Your task to perform on an android device: Open the Play Movies app and select the watchlist tab. Image 0: 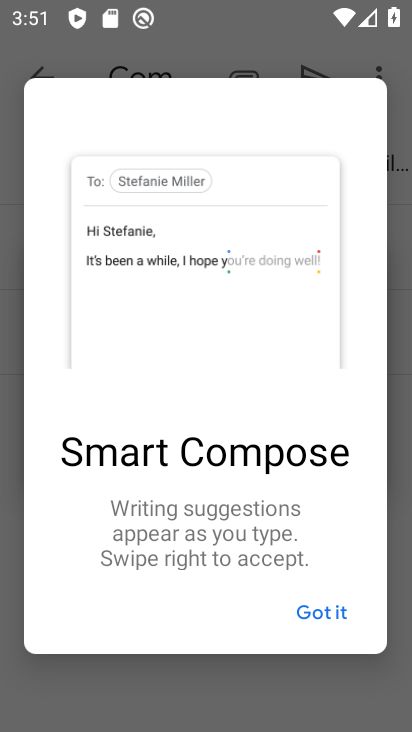
Step 0: press back button
Your task to perform on an android device: Open the Play Movies app and select the watchlist tab. Image 1: 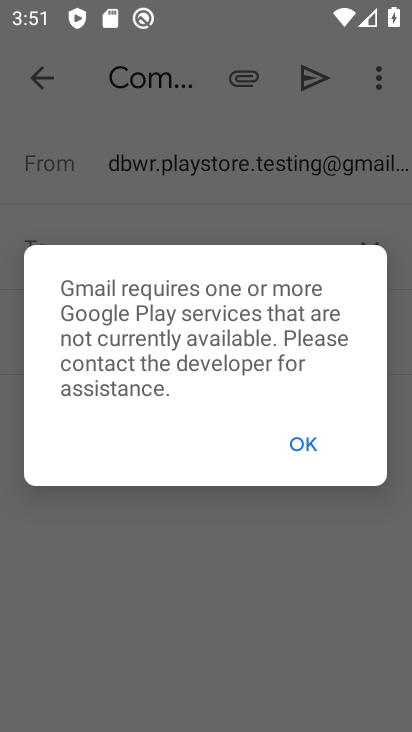
Step 1: press home button
Your task to perform on an android device: Open the Play Movies app and select the watchlist tab. Image 2: 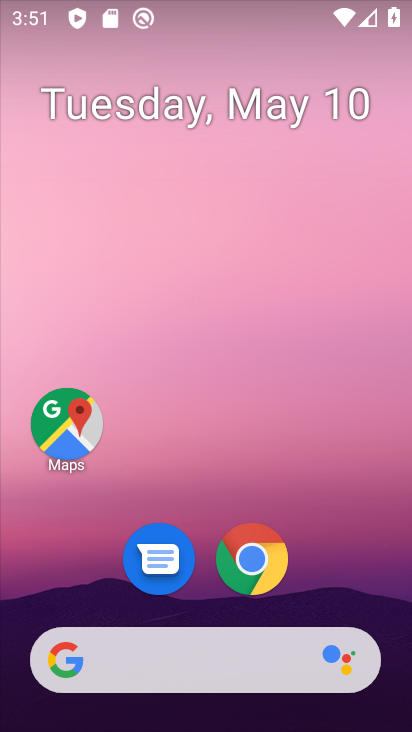
Step 2: drag from (199, 611) to (280, 110)
Your task to perform on an android device: Open the Play Movies app and select the watchlist tab. Image 3: 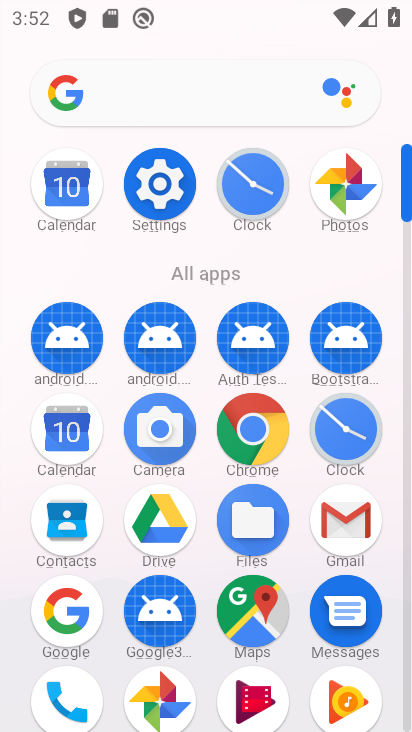
Step 3: drag from (181, 681) to (250, 360)
Your task to perform on an android device: Open the Play Movies app and select the watchlist tab. Image 4: 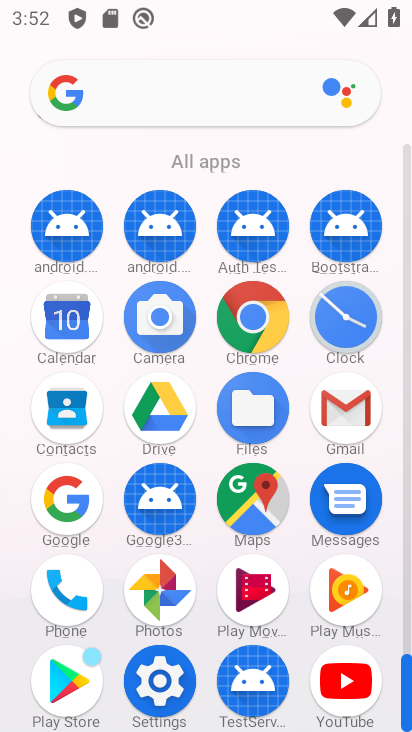
Step 4: click (268, 588)
Your task to perform on an android device: Open the Play Movies app and select the watchlist tab. Image 5: 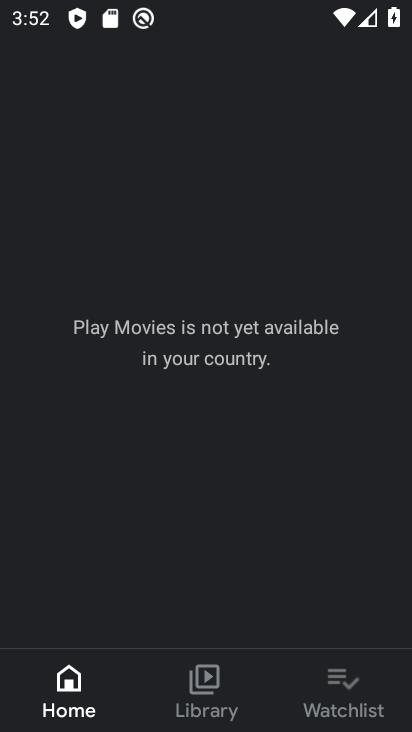
Step 5: click (319, 694)
Your task to perform on an android device: Open the Play Movies app and select the watchlist tab. Image 6: 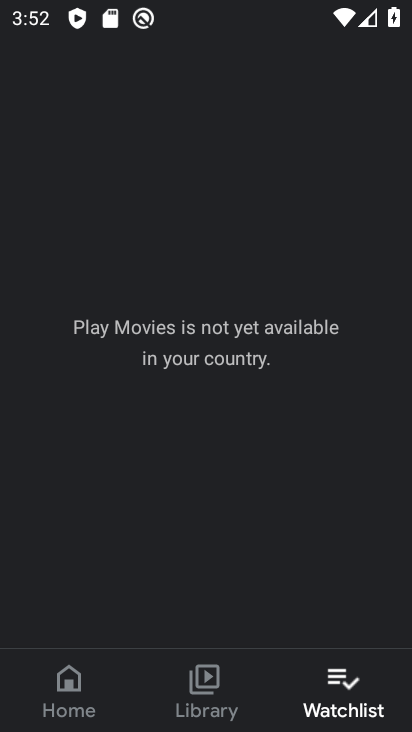
Step 6: task complete